Your task to perform on an android device: move a message to another label in the gmail app Image 0: 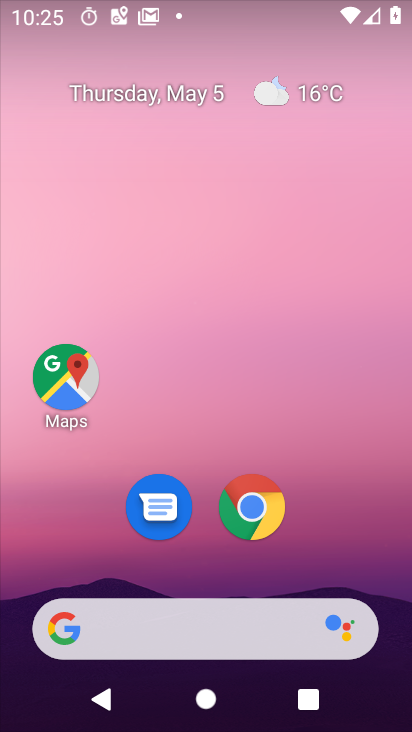
Step 0: drag from (160, 589) to (164, 189)
Your task to perform on an android device: move a message to another label in the gmail app Image 1: 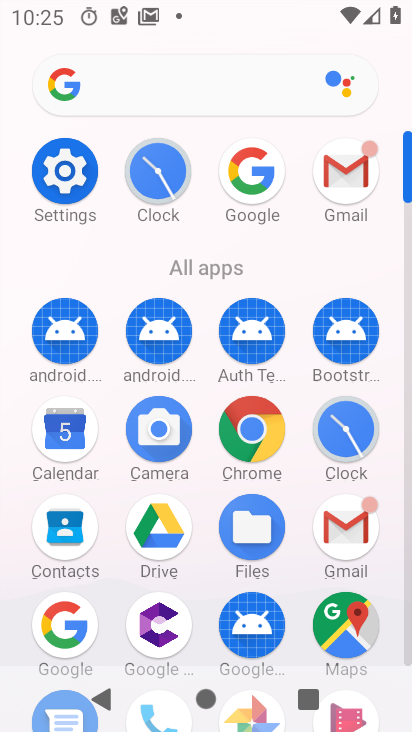
Step 1: click (353, 177)
Your task to perform on an android device: move a message to another label in the gmail app Image 2: 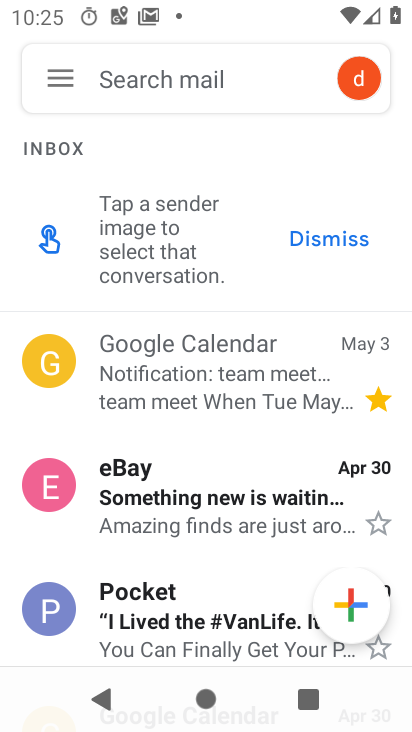
Step 2: click (162, 387)
Your task to perform on an android device: move a message to another label in the gmail app Image 3: 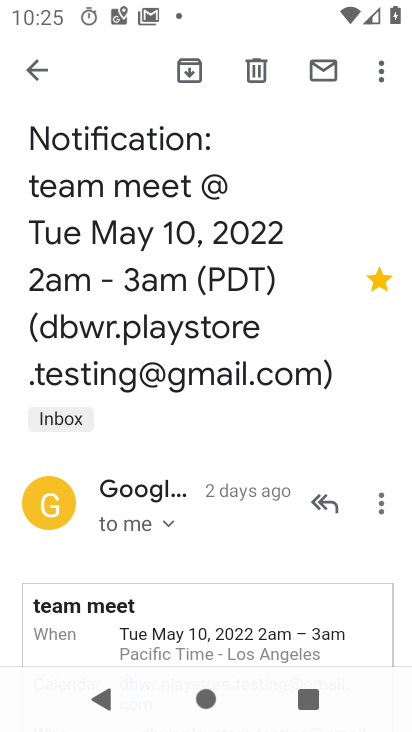
Step 3: click (379, 72)
Your task to perform on an android device: move a message to another label in the gmail app Image 4: 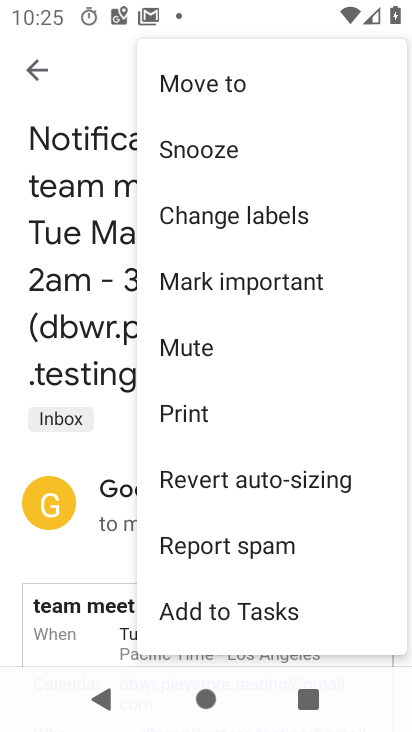
Step 4: click (249, 223)
Your task to perform on an android device: move a message to another label in the gmail app Image 5: 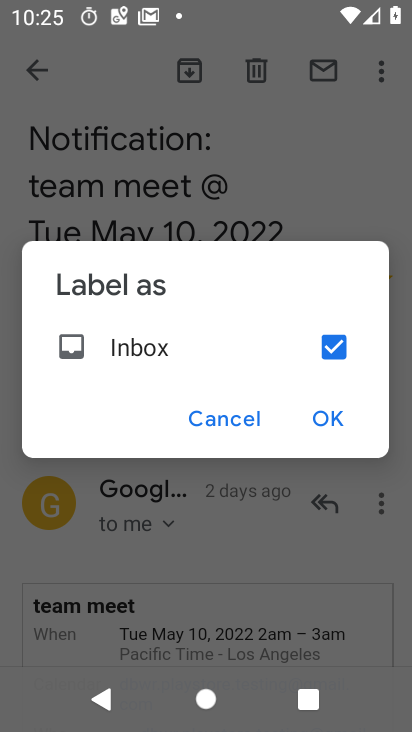
Step 5: click (336, 416)
Your task to perform on an android device: move a message to another label in the gmail app Image 6: 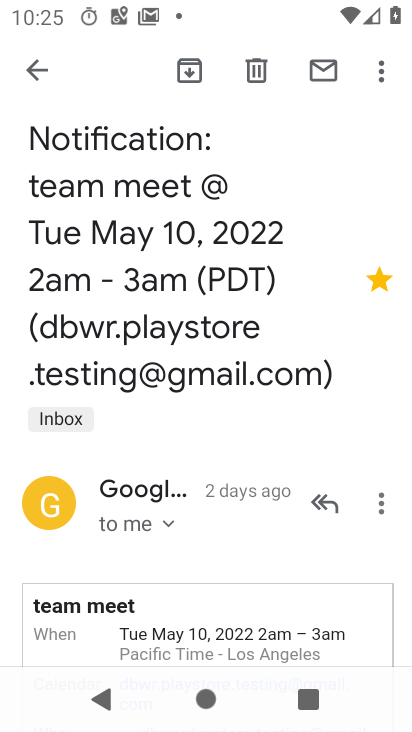
Step 6: task complete